Your task to perform on an android device: create a new album in the google photos Image 0: 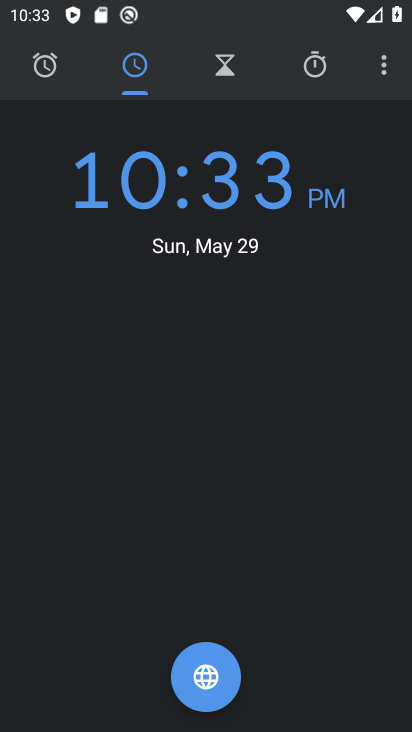
Step 0: press home button
Your task to perform on an android device: create a new album in the google photos Image 1: 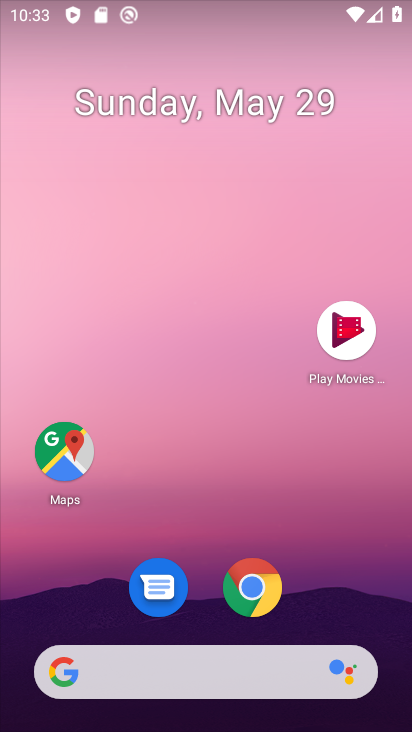
Step 1: drag from (315, 595) to (192, 83)
Your task to perform on an android device: create a new album in the google photos Image 2: 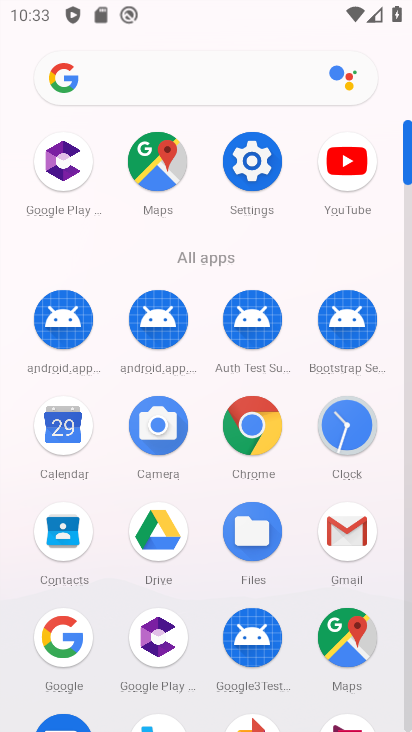
Step 2: click (406, 707)
Your task to perform on an android device: create a new album in the google photos Image 3: 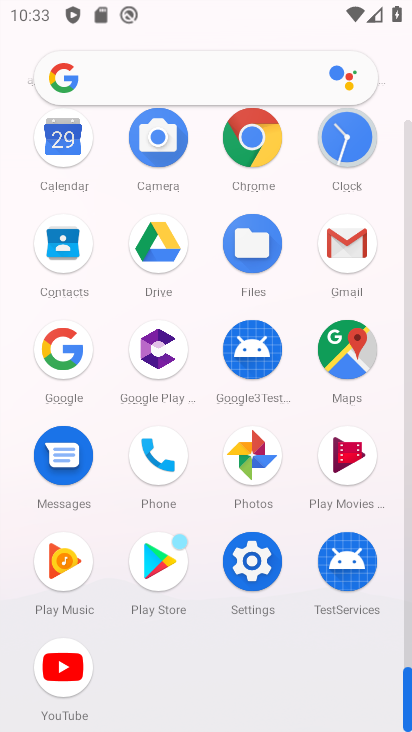
Step 3: click (243, 461)
Your task to perform on an android device: create a new album in the google photos Image 4: 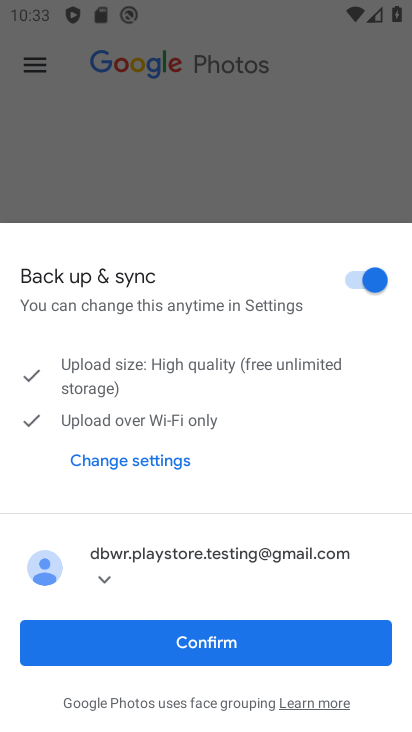
Step 4: click (266, 648)
Your task to perform on an android device: create a new album in the google photos Image 5: 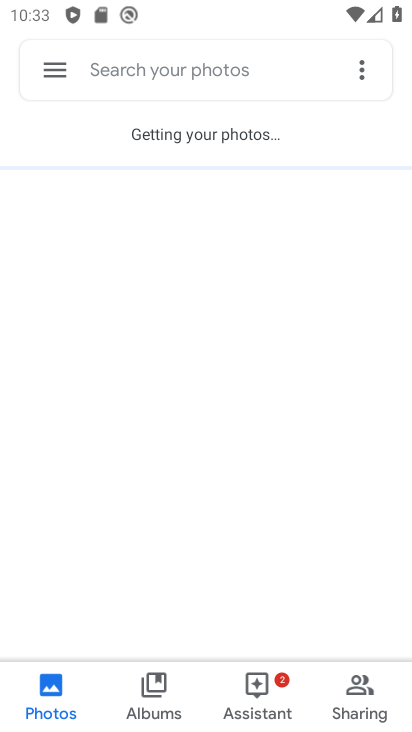
Step 5: click (273, 687)
Your task to perform on an android device: create a new album in the google photos Image 6: 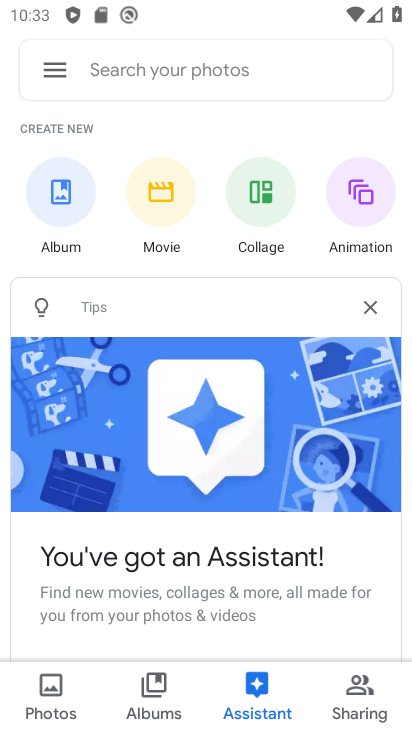
Step 6: click (54, 196)
Your task to perform on an android device: create a new album in the google photos Image 7: 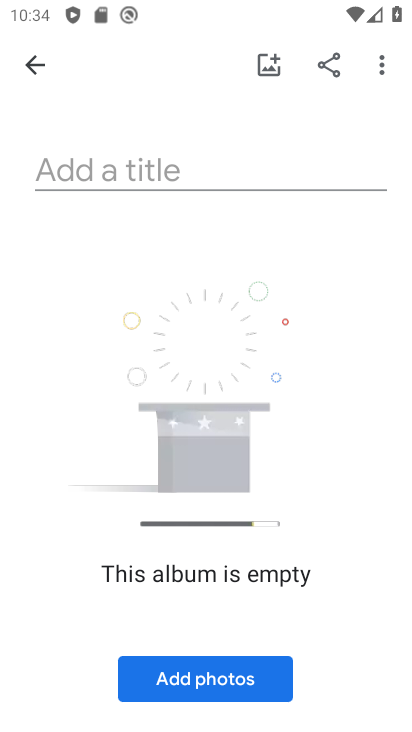
Step 7: click (92, 171)
Your task to perform on an android device: create a new album in the google photos Image 8: 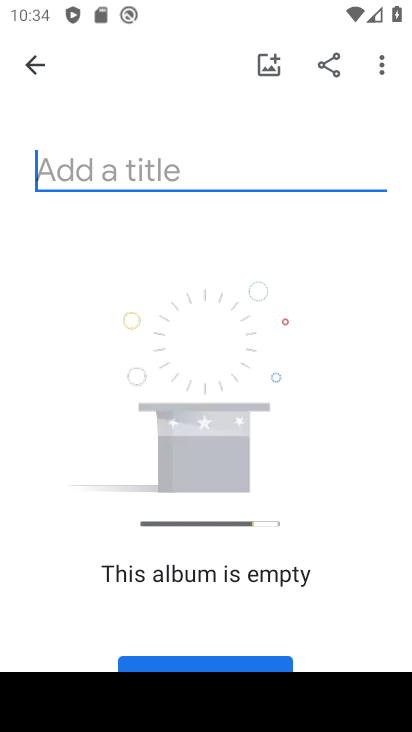
Step 8: type "rfjnjknfvjnfkjnk"
Your task to perform on an android device: create a new album in the google photos Image 9: 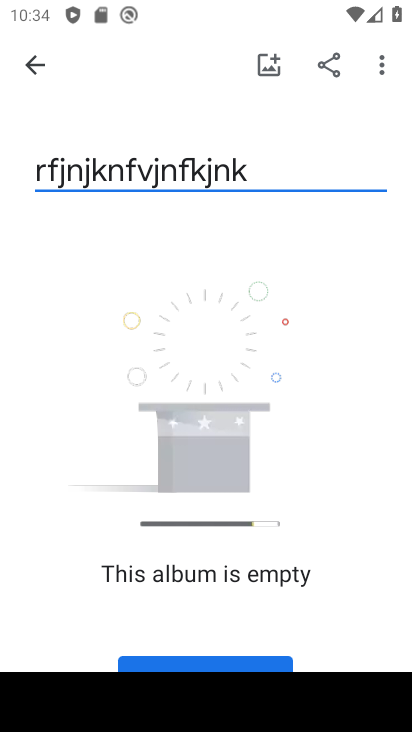
Step 9: click (266, 66)
Your task to perform on an android device: create a new album in the google photos Image 10: 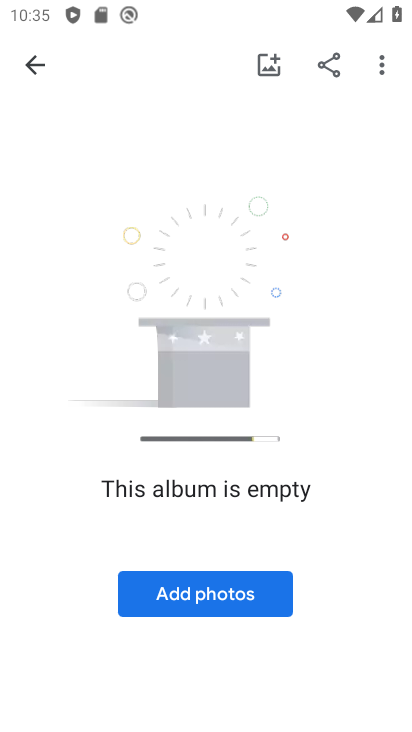
Step 10: click (231, 594)
Your task to perform on an android device: create a new album in the google photos Image 11: 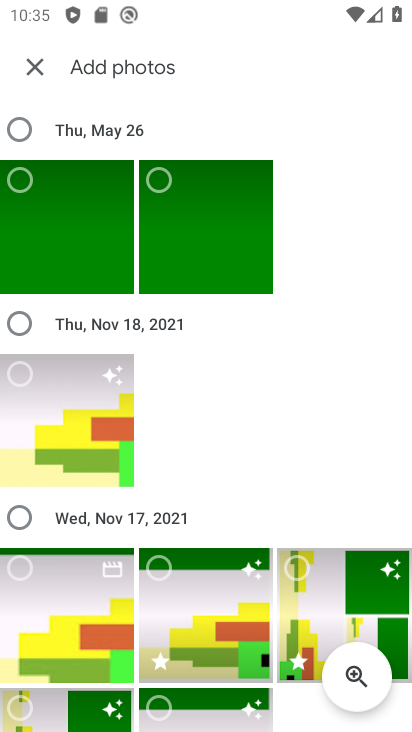
Step 11: click (209, 195)
Your task to perform on an android device: create a new album in the google photos Image 12: 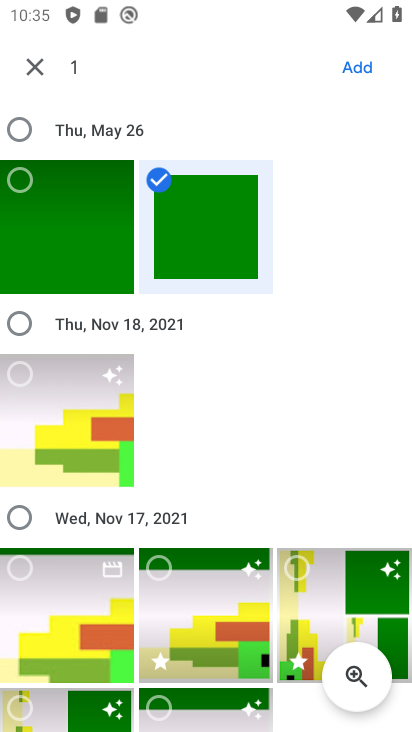
Step 12: click (368, 68)
Your task to perform on an android device: create a new album in the google photos Image 13: 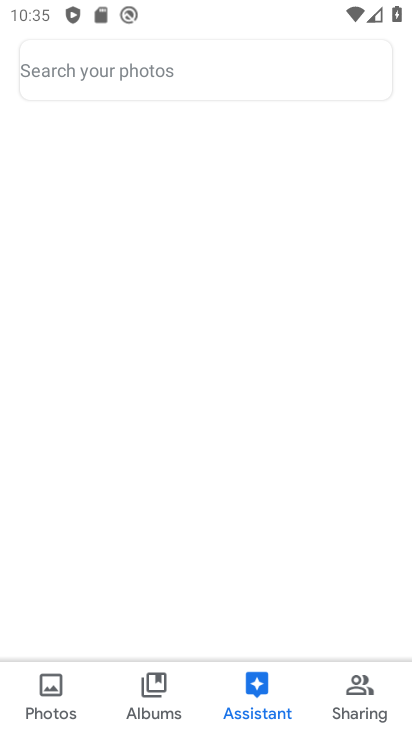
Step 13: task complete